Your task to perform on an android device: Open Yahoo.com Image 0: 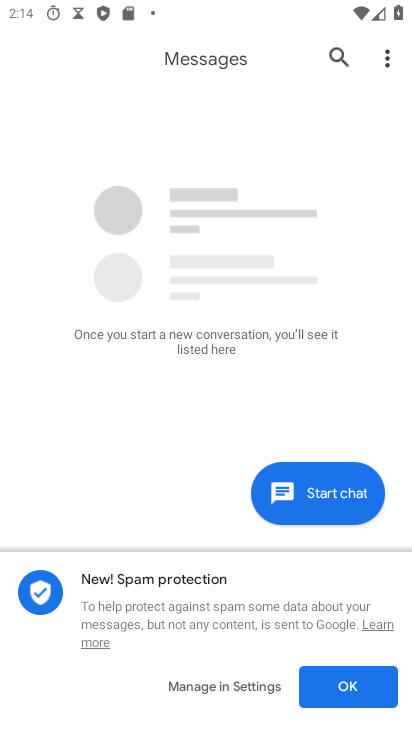
Step 0: press home button
Your task to perform on an android device: Open Yahoo.com Image 1: 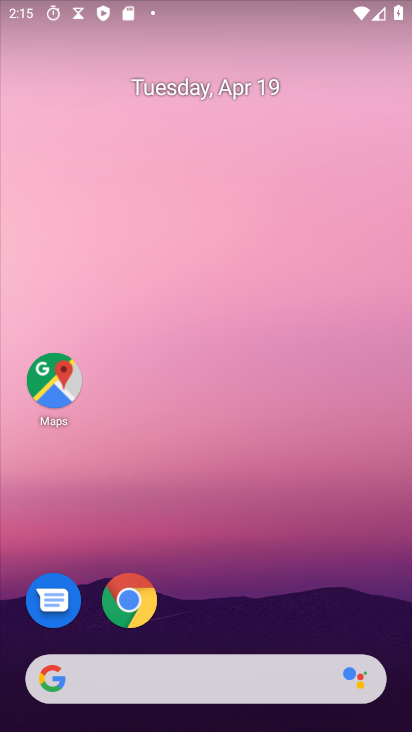
Step 1: drag from (255, 715) to (291, 239)
Your task to perform on an android device: Open Yahoo.com Image 2: 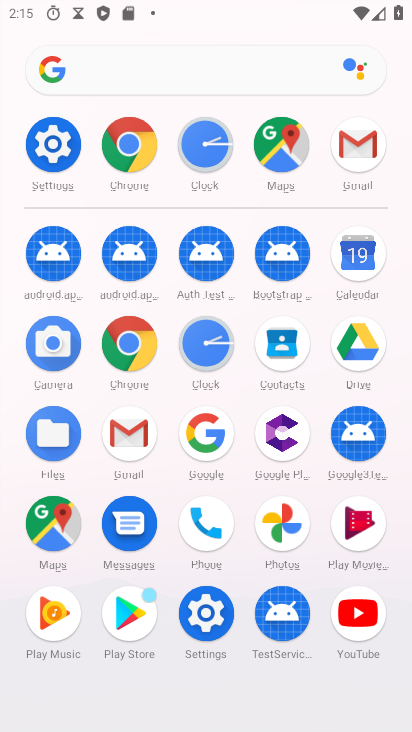
Step 2: click (142, 142)
Your task to perform on an android device: Open Yahoo.com Image 3: 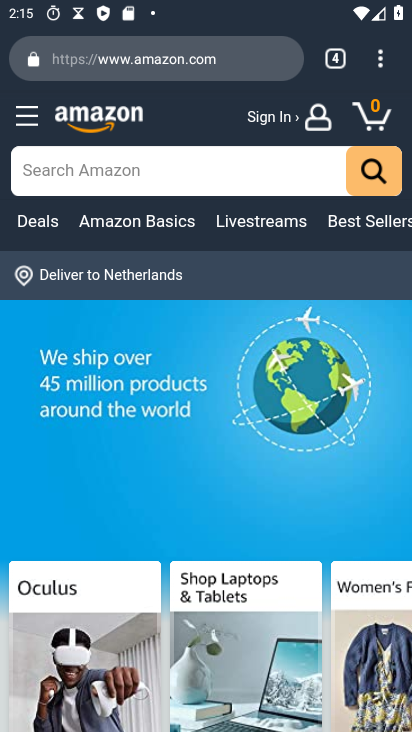
Step 3: click (329, 49)
Your task to perform on an android device: Open Yahoo.com Image 4: 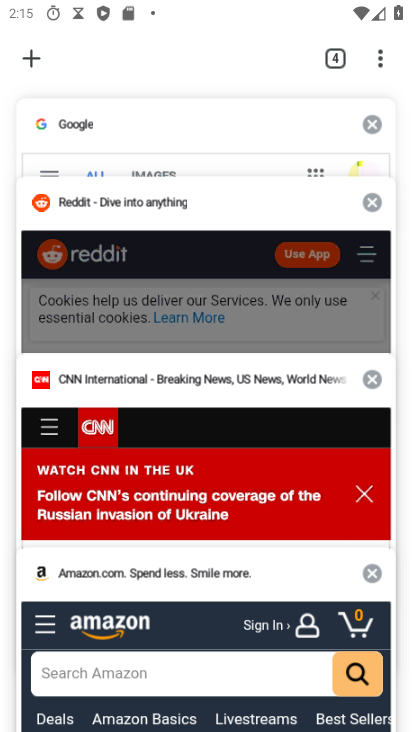
Step 4: click (29, 60)
Your task to perform on an android device: Open Yahoo.com Image 5: 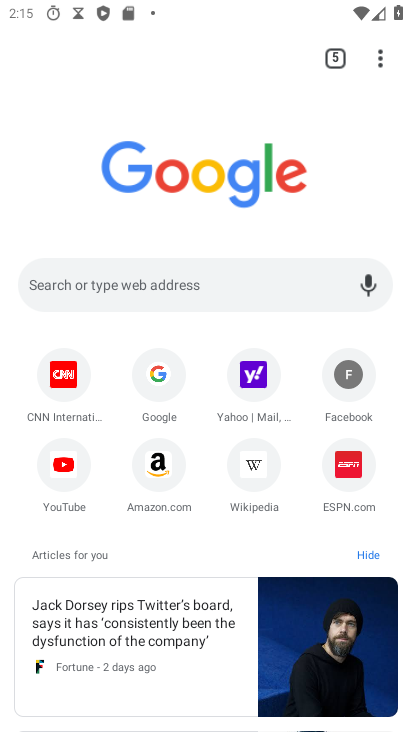
Step 5: click (251, 394)
Your task to perform on an android device: Open Yahoo.com Image 6: 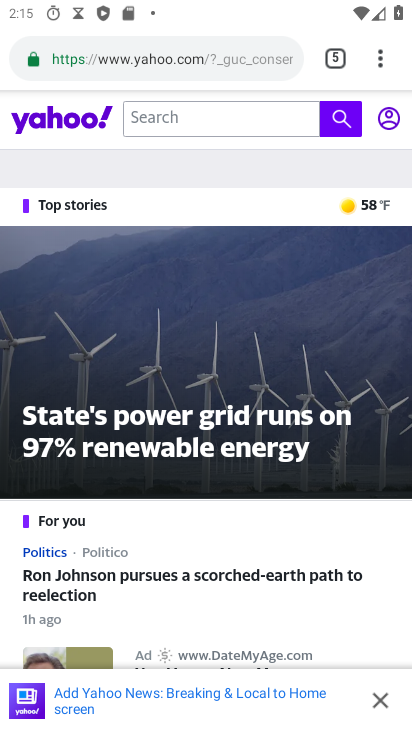
Step 6: task complete